Your task to perform on an android device: toggle priority inbox in the gmail app Image 0: 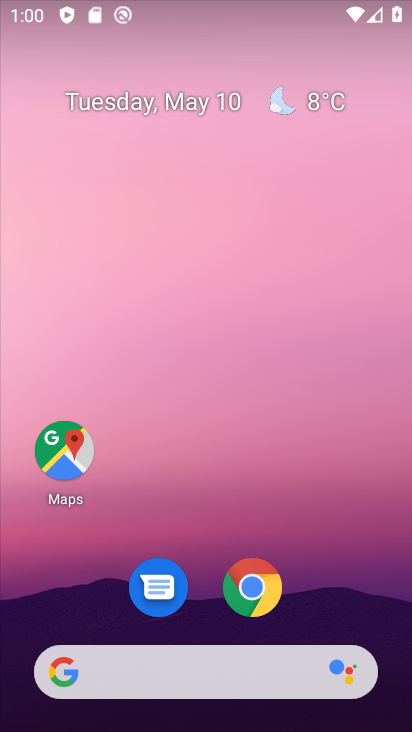
Step 0: drag from (323, 593) to (259, 172)
Your task to perform on an android device: toggle priority inbox in the gmail app Image 1: 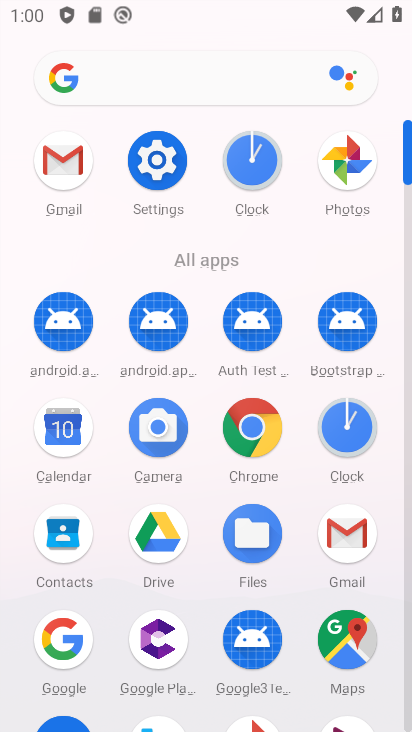
Step 1: drag from (200, 514) to (193, 398)
Your task to perform on an android device: toggle priority inbox in the gmail app Image 2: 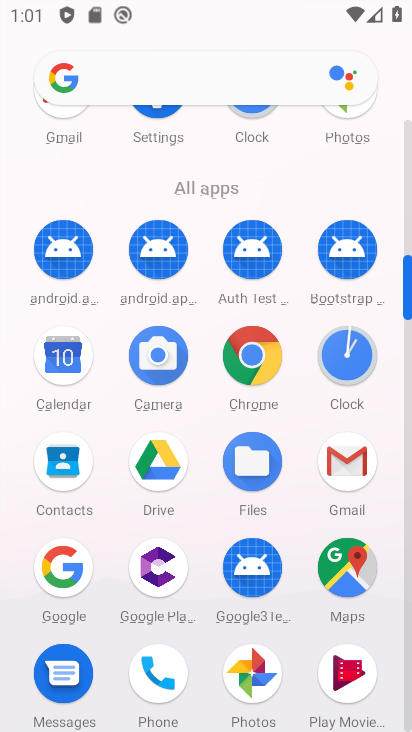
Step 2: click (352, 450)
Your task to perform on an android device: toggle priority inbox in the gmail app Image 3: 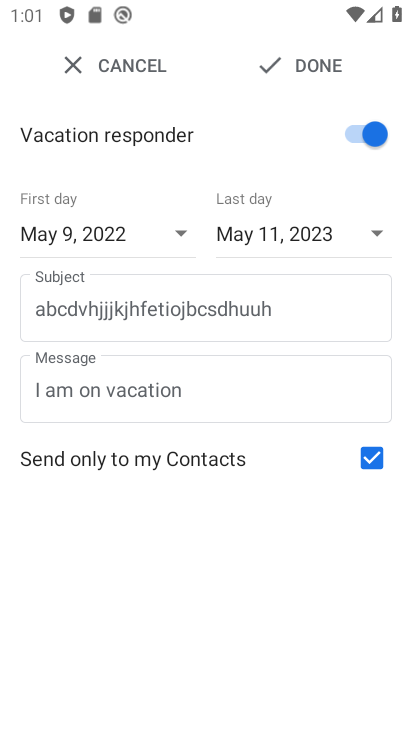
Step 3: click (99, 61)
Your task to perform on an android device: toggle priority inbox in the gmail app Image 4: 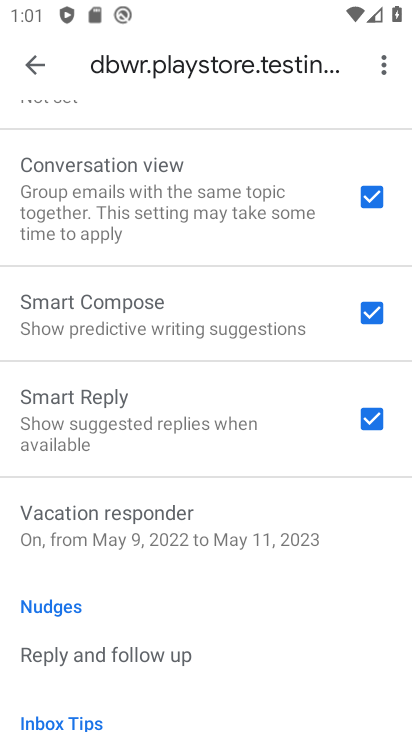
Step 4: drag from (133, 207) to (150, 488)
Your task to perform on an android device: toggle priority inbox in the gmail app Image 5: 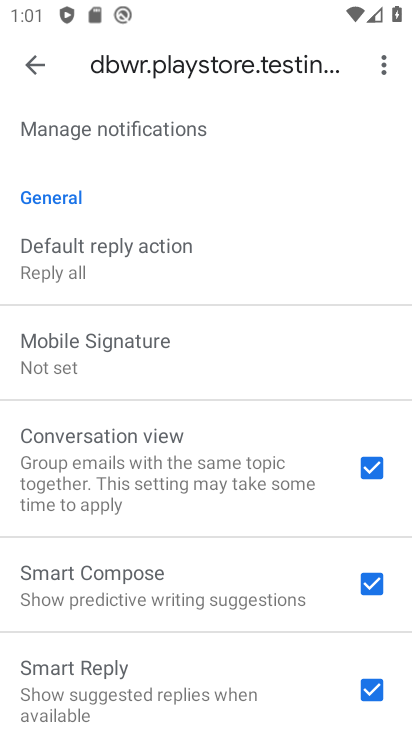
Step 5: drag from (145, 235) to (164, 594)
Your task to perform on an android device: toggle priority inbox in the gmail app Image 6: 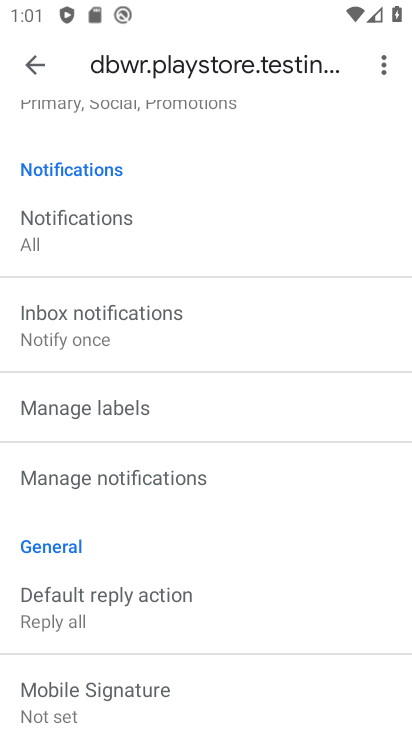
Step 6: drag from (159, 164) to (160, 444)
Your task to perform on an android device: toggle priority inbox in the gmail app Image 7: 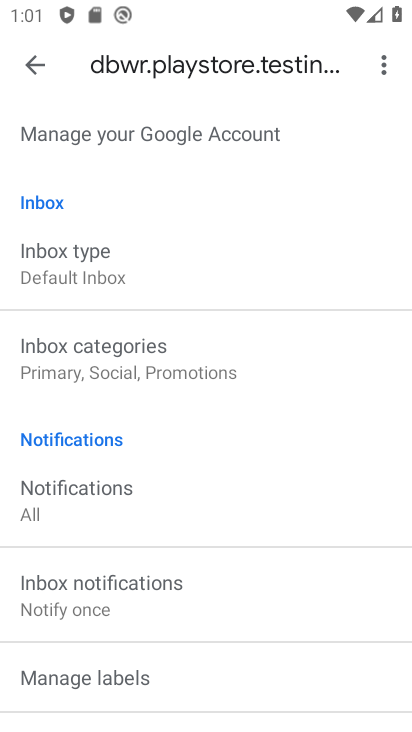
Step 7: click (137, 274)
Your task to perform on an android device: toggle priority inbox in the gmail app Image 8: 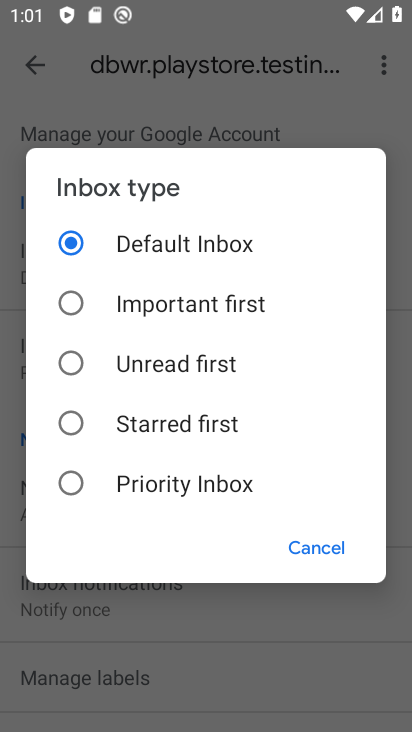
Step 8: click (134, 480)
Your task to perform on an android device: toggle priority inbox in the gmail app Image 9: 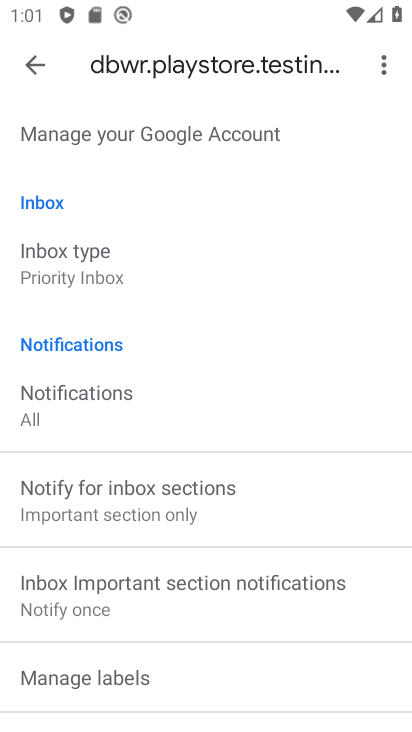
Step 9: task complete